Your task to perform on an android device: Go to notification settings Image 0: 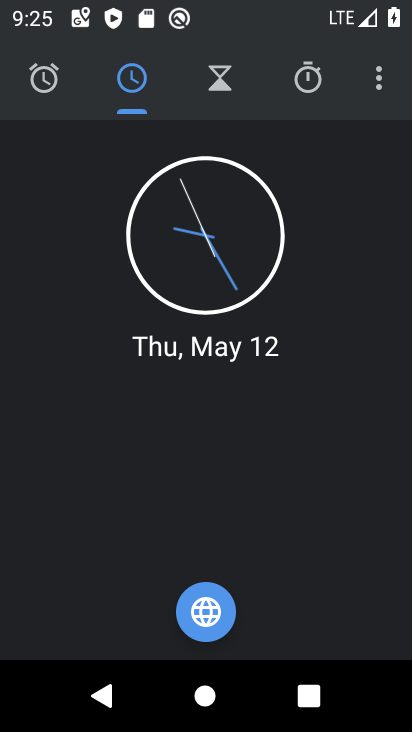
Step 0: press home button
Your task to perform on an android device: Go to notification settings Image 1: 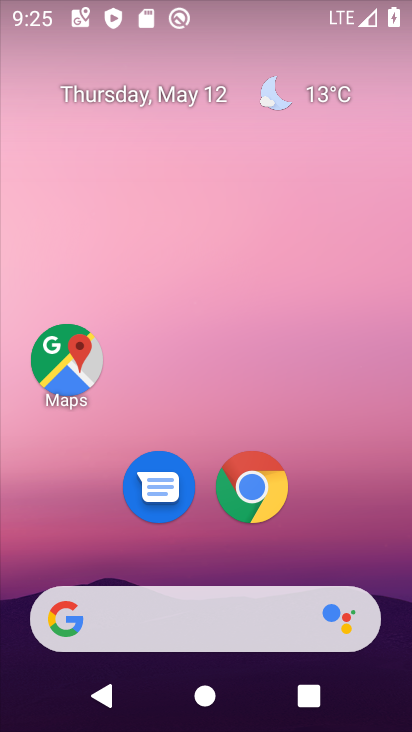
Step 1: drag from (356, 561) to (323, 4)
Your task to perform on an android device: Go to notification settings Image 2: 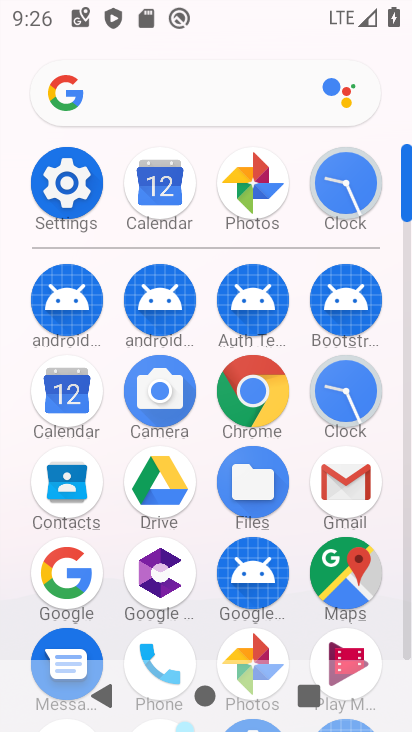
Step 2: click (62, 181)
Your task to perform on an android device: Go to notification settings Image 3: 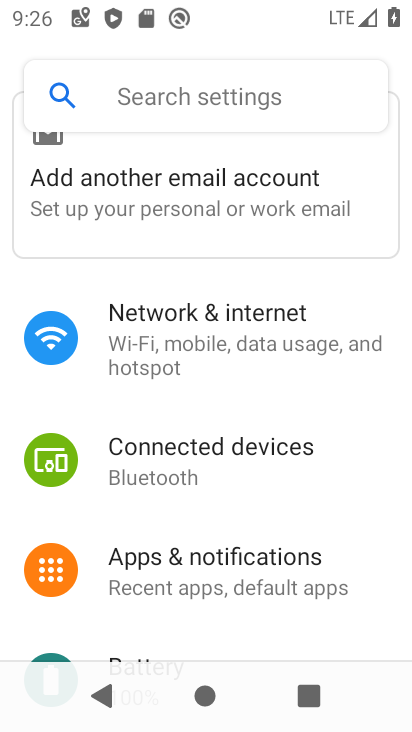
Step 3: click (231, 578)
Your task to perform on an android device: Go to notification settings Image 4: 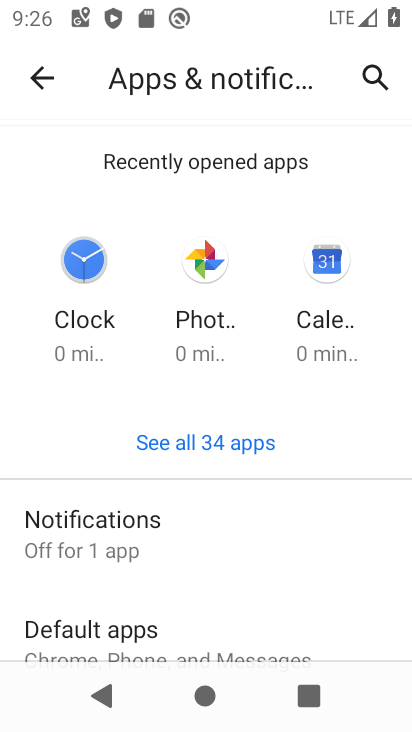
Step 4: task complete